Your task to perform on an android device: change the upload size in google photos Image 0: 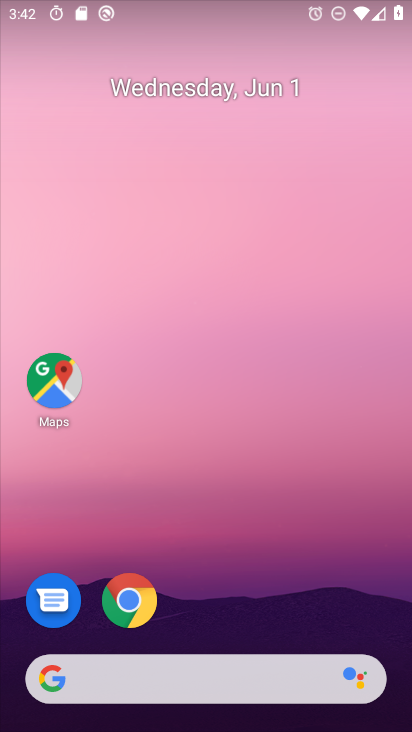
Step 0: drag from (194, 624) to (214, 267)
Your task to perform on an android device: change the upload size in google photos Image 1: 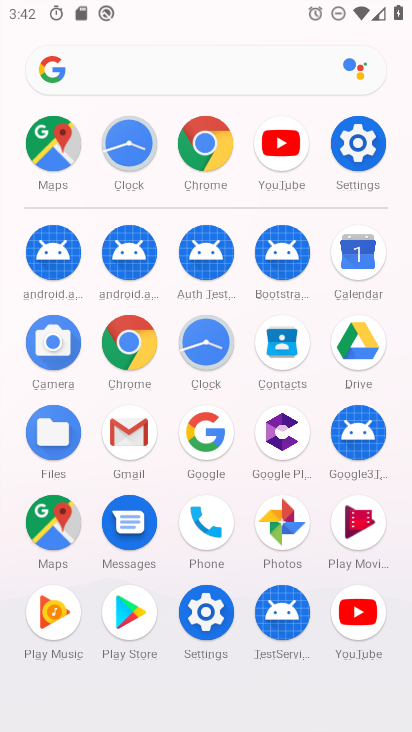
Step 1: click (275, 528)
Your task to perform on an android device: change the upload size in google photos Image 2: 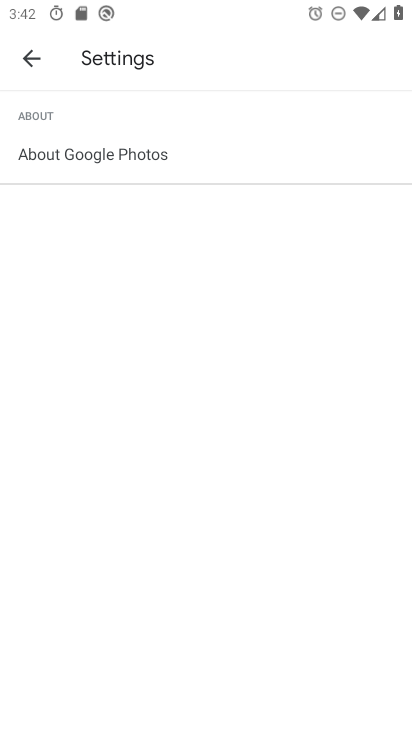
Step 2: click (45, 66)
Your task to perform on an android device: change the upload size in google photos Image 3: 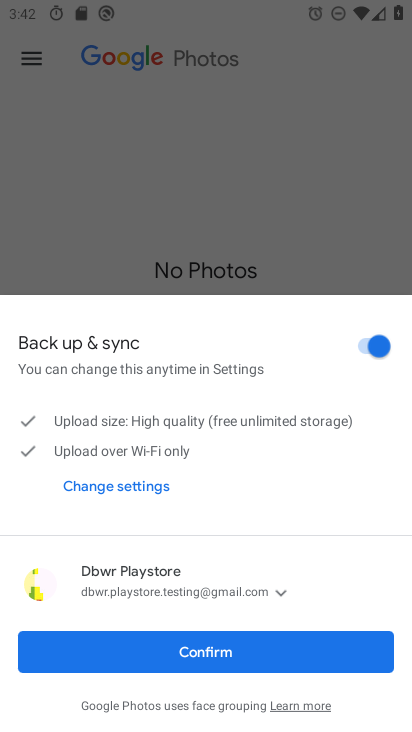
Step 3: click (198, 646)
Your task to perform on an android device: change the upload size in google photos Image 4: 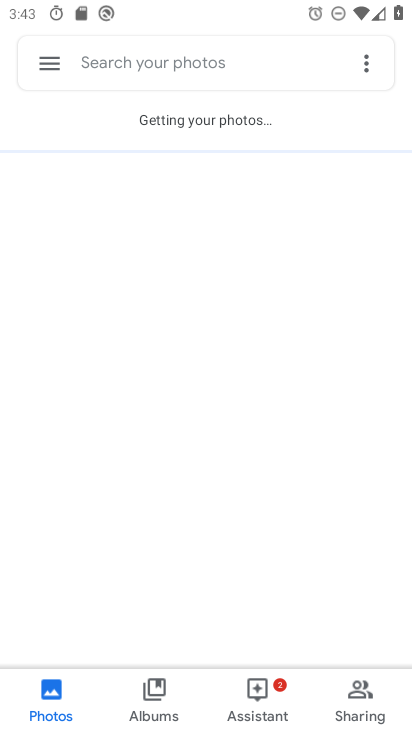
Step 4: click (46, 64)
Your task to perform on an android device: change the upload size in google photos Image 5: 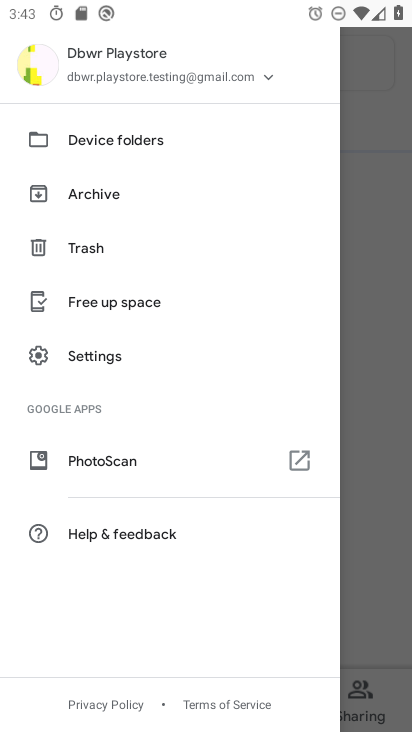
Step 5: click (88, 357)
Your task to perform on an android device: change the upload size in google photos Image 6: 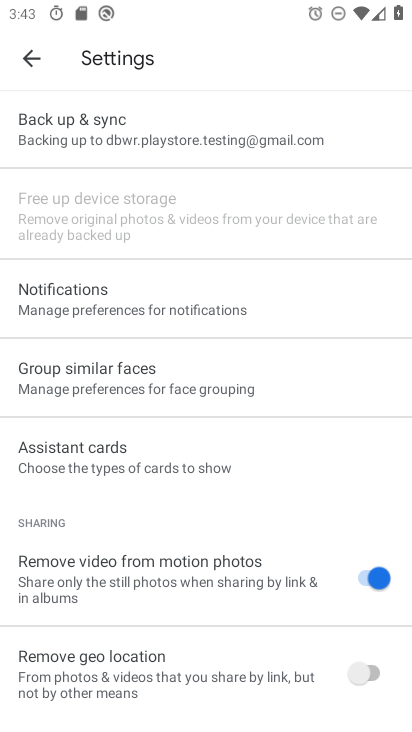
Step 6: click (96, 131)
Your task to perform on an android device: change the upload size in google photos Image 7: 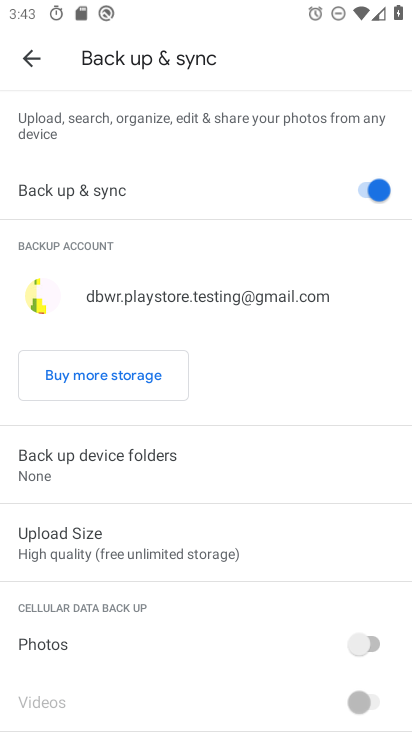
Step 7: click (122, 551)
Your task to perform on an android device: change the upload size in google photos Image 8: 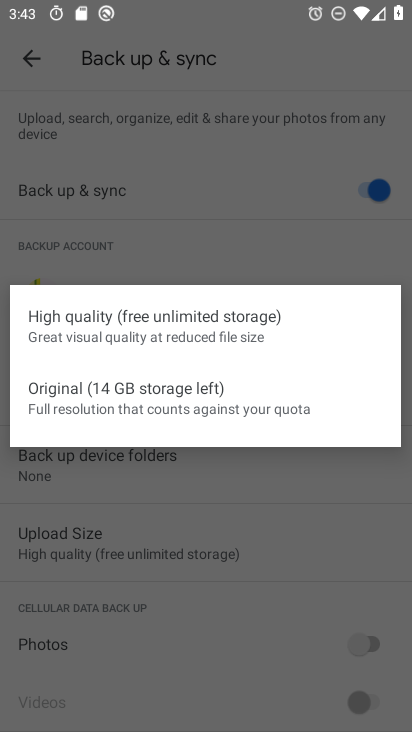
Step 8: click (125, 410)
Your task to perform on an android device: change the upload size in google photos Image 9: 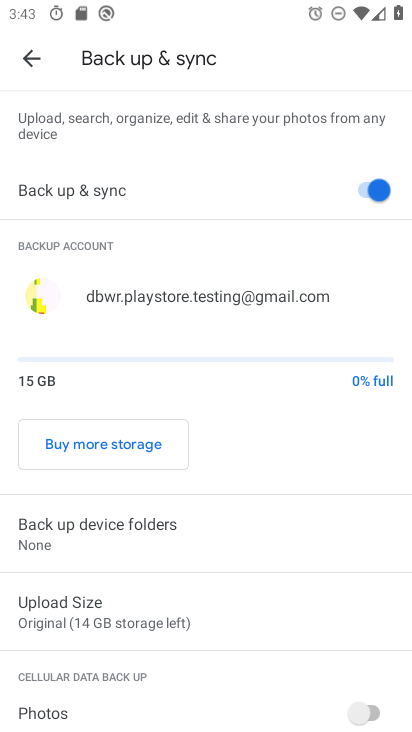
Step 9: task complete